Your task to perform on an android device: Search for razer naga on bestbuy, select the first entry, add it to the cart, then select checkout. Image 0: 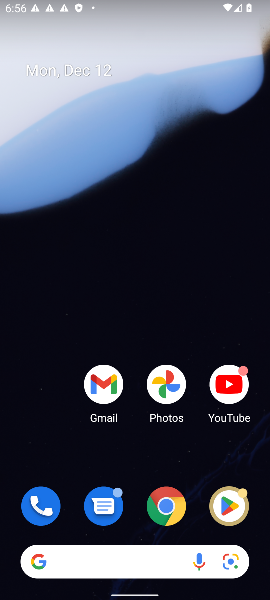
Step 0: click (159, 561)
Your task to perform on an android device: Search for razer naga on bestbuy, select the first entry, add it to the cart, then select checkout. Image 1: 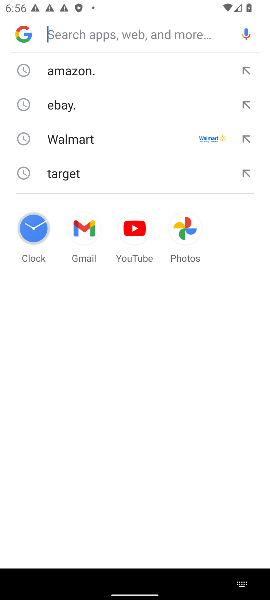
Step 1: type "estbuy"
Your task to perform on an android device: Search for razer naga on bestbuy, select the first entry, add it to the cart, then select checkout. Image 2: 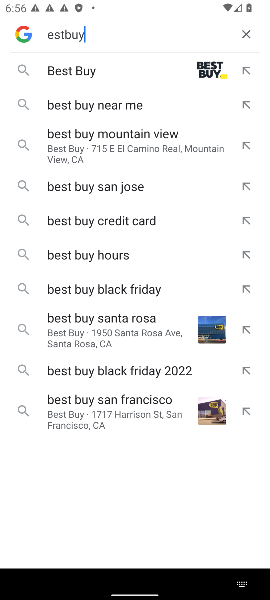
Step 2: click (121, 77)
Your task to perform on an android device: Search for razer naga on bestbuy, select the first entry, add it to the cart, then select checkout. Image 3: 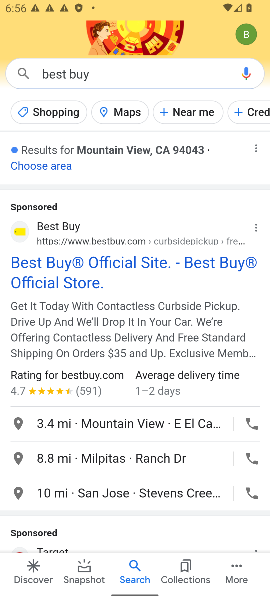
Step 3: click (141, 278)
Your task to perform on an android device: Search for razer naga on bestbuy, select the first entry, add it to the cart, then select checkout. Image 4: 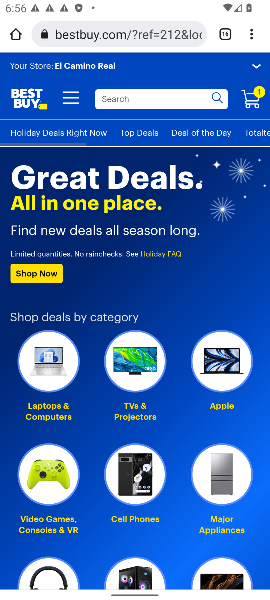
Step 4: click (182, 105)
Your task to perform on an android device: Search for razer naga on bestbuy, select the first entry, add it to the cart, then select checkout. Image 5: 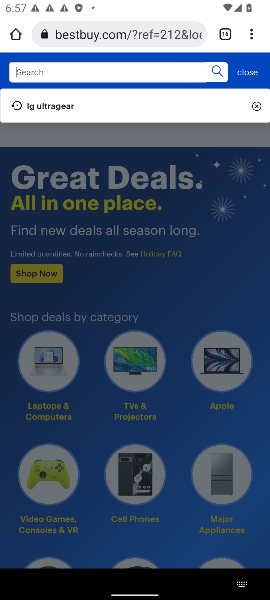
Step 5: type "razer naga"
Your task to perform on an android device: Search for razer naga on bestbuy, select the first entry, add it to the cart, then select checkout. Image 6: 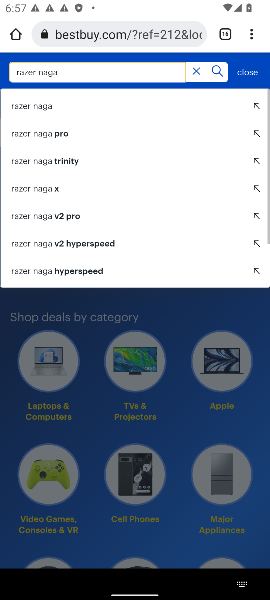
Step 6: click (115, 100)
Your task to perform on an android device: Search for razer naga on bestbuy, select the first entry, add it to the cart, then select checkout. Image 7: 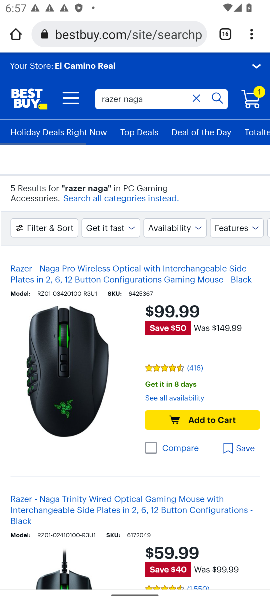
Step 7: click (174, 408)
Your task to perform on an android device: Search for razer naga on bestbuy, select the first entry, add it to the cart, then select checkout. Image 8: 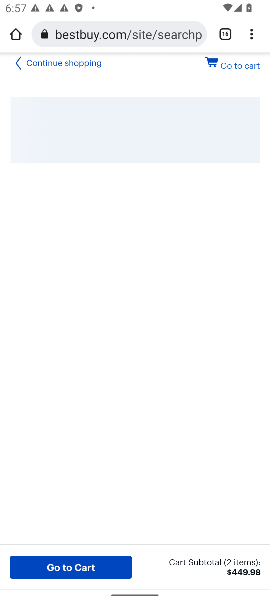
Step 8: task complete